Your task to perform on an android device: Go to notification settings Image 0: 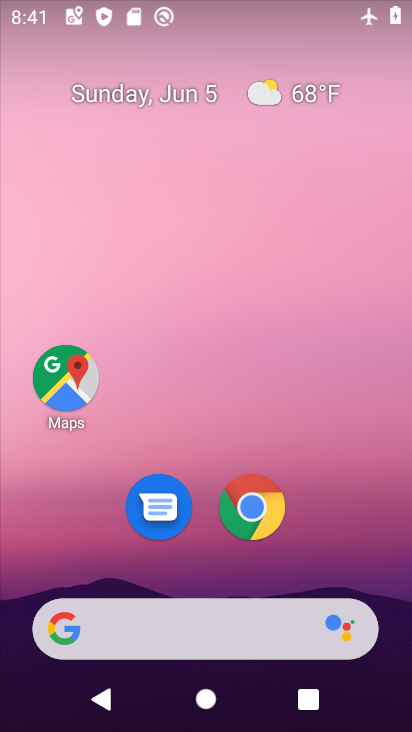
Step 0: drag from (190, 561) to (228, 88)
Your task to perform on an android device: Go to notification settings Image 1: 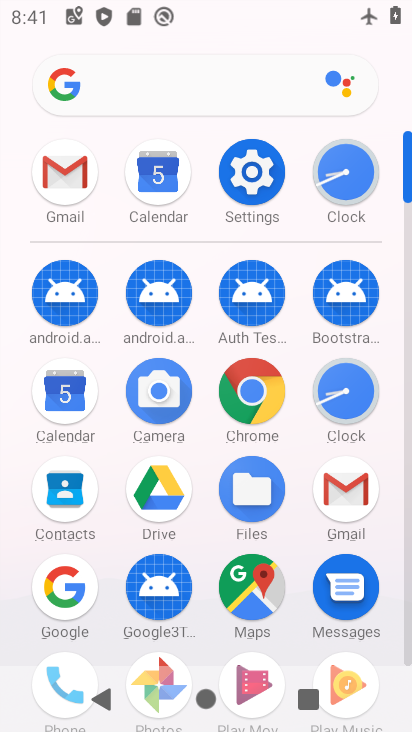
Step 1: click (253, 194)
Your task to perform on an android device: Go to notification settings Image 2: 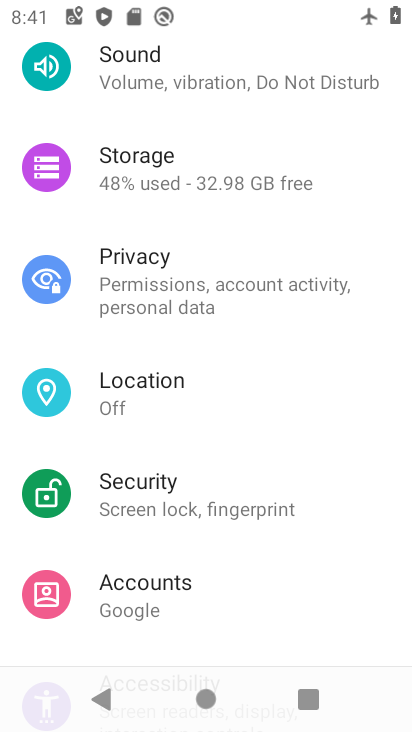
Step 2: drag from (213, 415) to (213, 573)
Your task to perform on an android device: Go to notification settings Image 3: 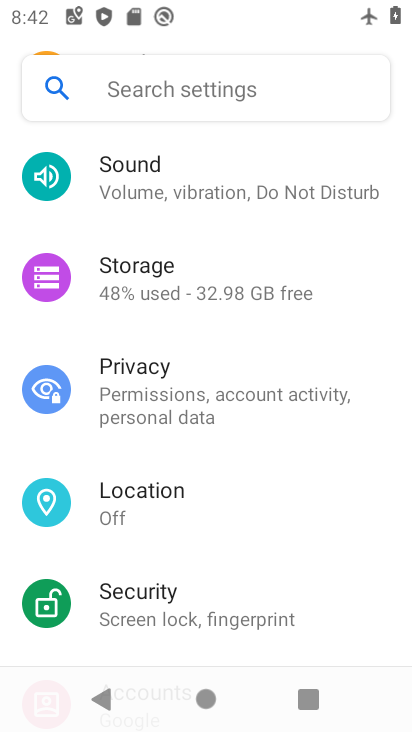
Step 3: drag from (208, 219) to (145, 647)
Your task to perform on an android device: Go to notification settings Image 4: 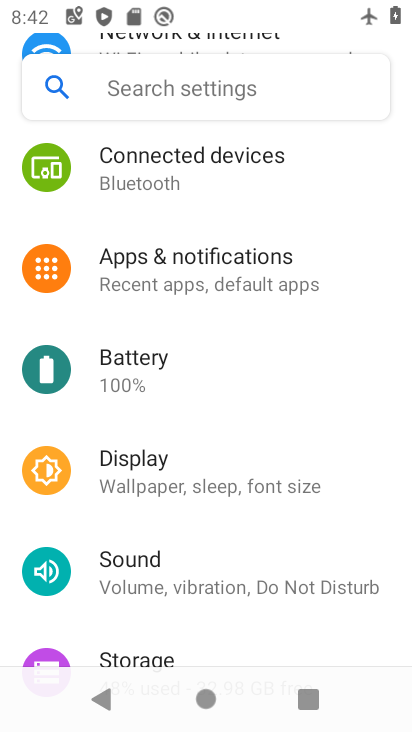
Step 4: click (245, 267)
Your task to perform on an android device: Go to notification settings Image 5: 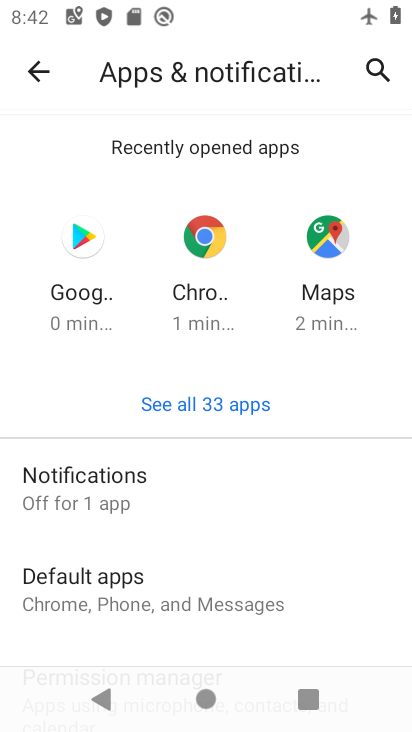
Step 5: click (132, 504)
Your task to perform on an android device: Go to notification settings Image 6: 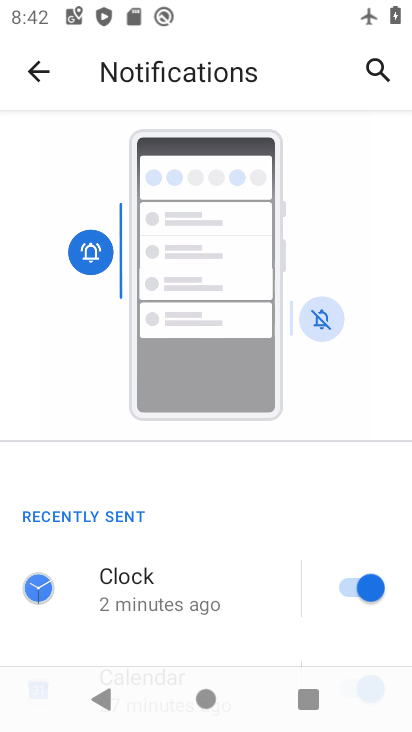
Step 6: task complete